Your task to perform on an android device: search for starred emails in the gmail app Image 0: 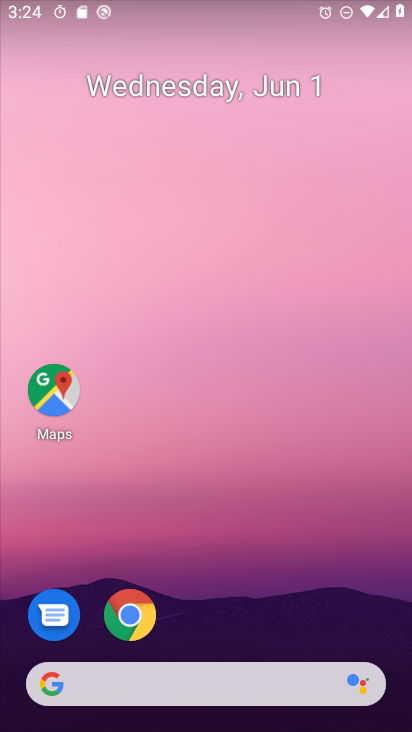
Step 0: drag from (279, 541) to (293, 160)
Your task to perform on an android device: search for starred emails in the gmail app Image 1: 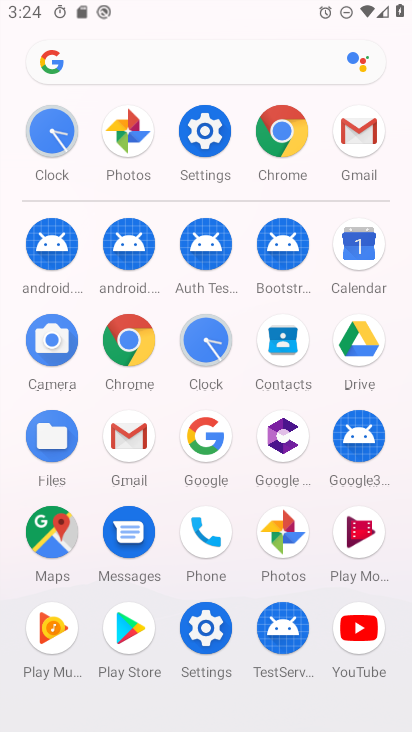
Step 1: click (127, 453)
Your task to perform on an android device: search for starred emails in the gmail app Image 2: 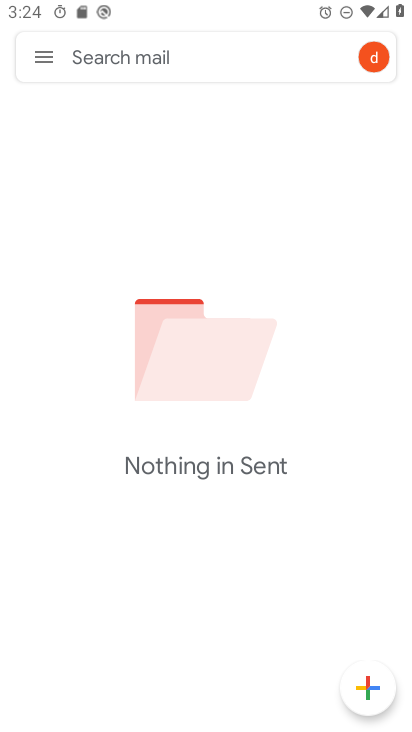
Step 2: click (43, 57)
Your task to perform on an android device: search for starred emails in the gmail app Image 3: 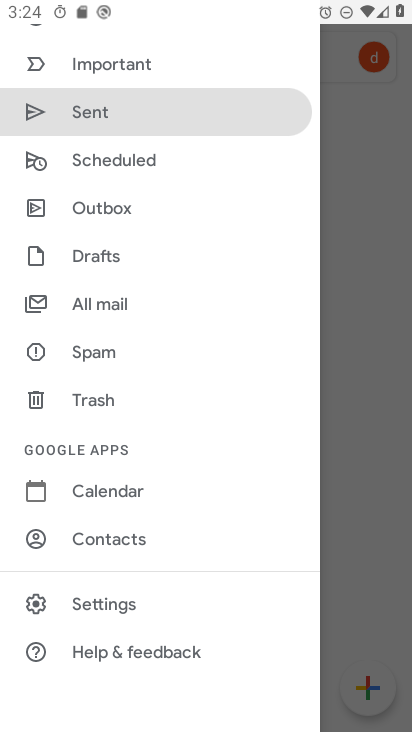
Step 3: drag from (215, 219) to (228, 439)
Your task to perform on an android device: search for starred emails in the gmail app Image 4: 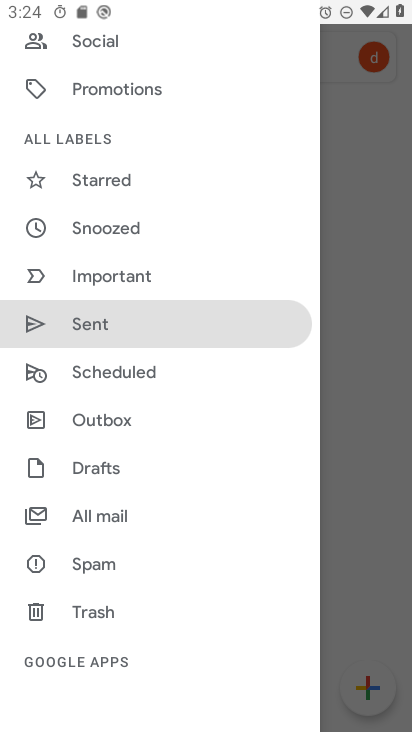
Step 4: click (117, 192)
Your task to perform on an android device: search for starred emails in the gmail app Image 5: 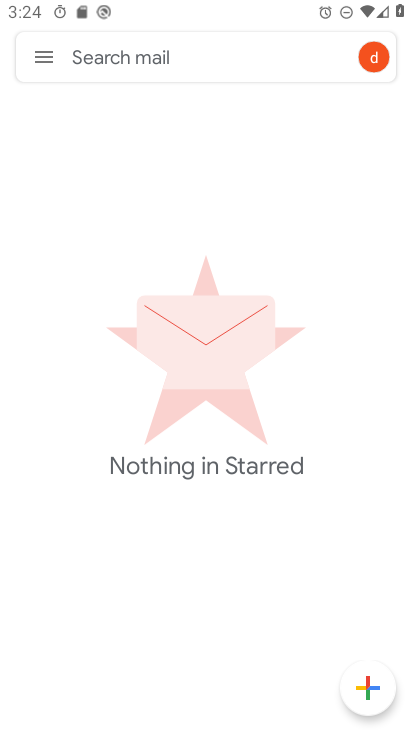
Step 5: task complete